Your task to perform on an android device: turn off javascript in the chrome app Image 0: 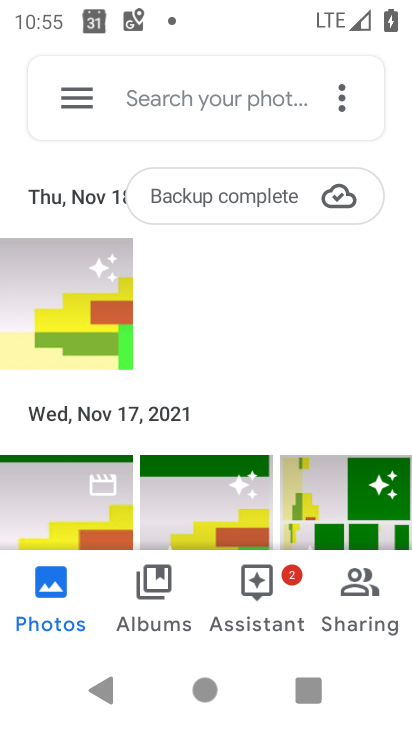
Step 0: press home button
Your task to perform on an android device: turn off javascript in the chrome app Image 1: 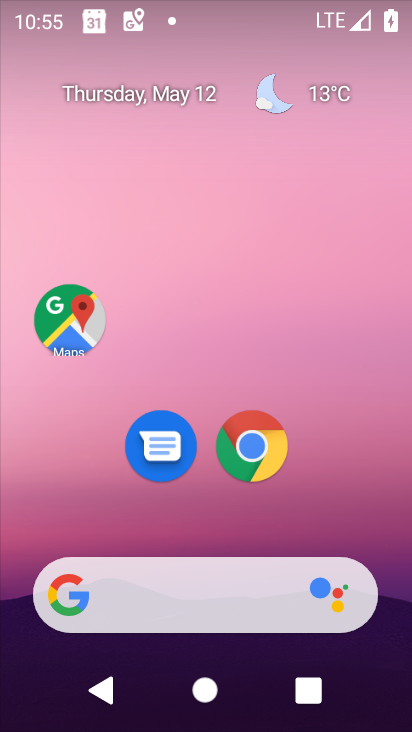
Step 1: drag from (196, 555) to (210, 119)
Your task to perform on an android device: turn off javascript in the chrome app Image 2: 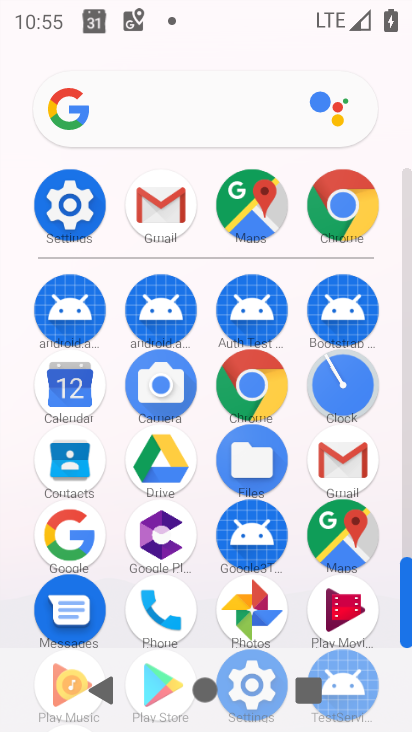
Step 2: click (250, 385)
Your task to perform on an android device: turn off javascript in the chrome app Image 3: 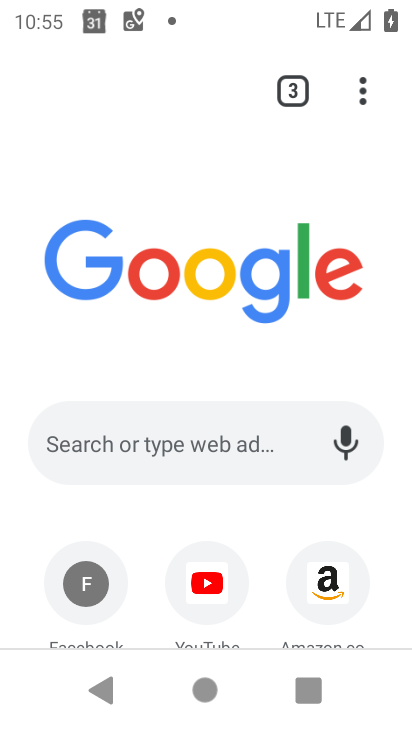
Step 3: drag from (357, 80) to (140, 473)
Your task to perform on an android device: turn off javascript in the chrome app Image 4: 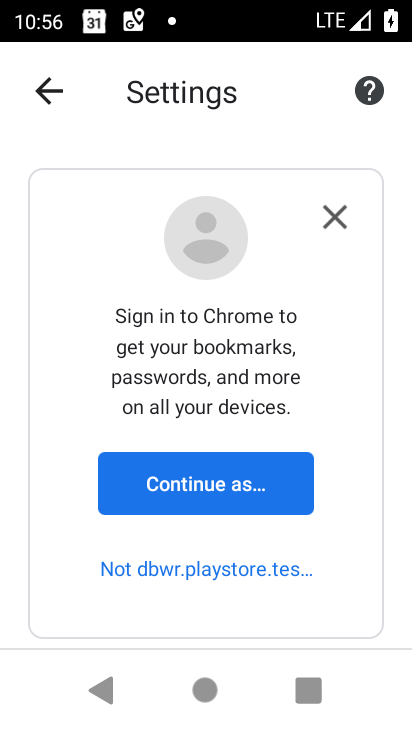
Step 4: drag from (278, 614) to (247, 31)
Your task to perform on an android device: turn off javascript in the chrome app Image 5: 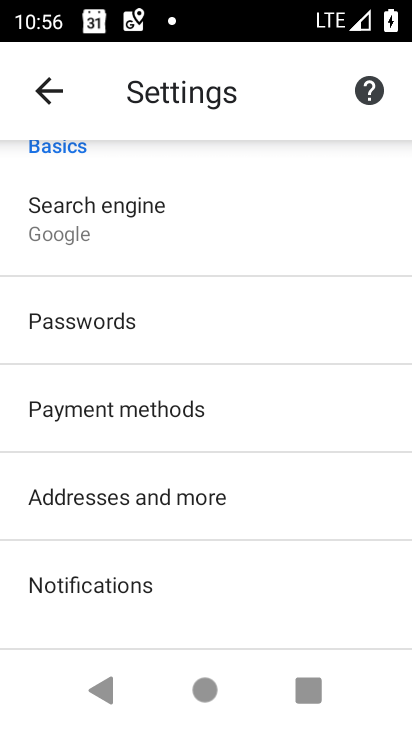
Step 5: drag from (246, 617) to (275, 95)
Your task to perform on an android device: turn off javascript in the chrome app Image 6: 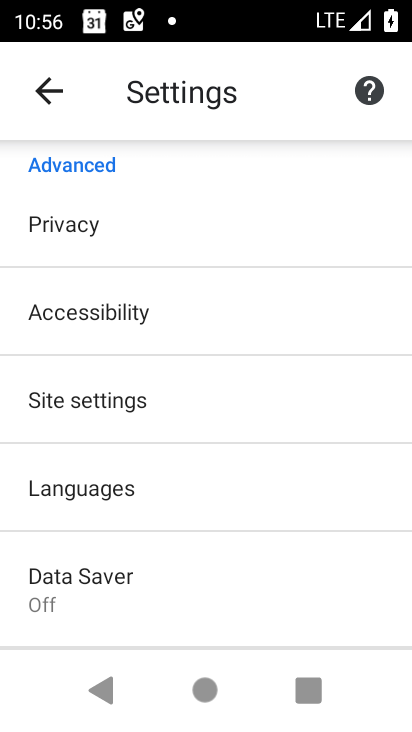
Step 6: click (138, 411)
Your task to perform on an android device: turn off javascript in the chrome app Image 7: 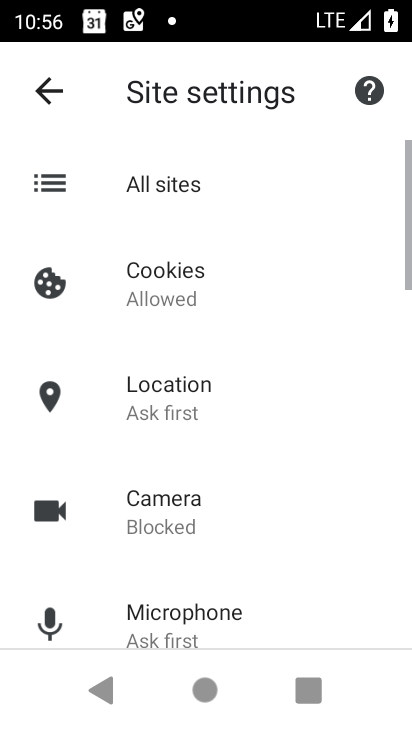
Step 7: drag from (253, 621) to (266, 149)
Your task to perform on an android device: turn off javascript in the chrome app Image 8: 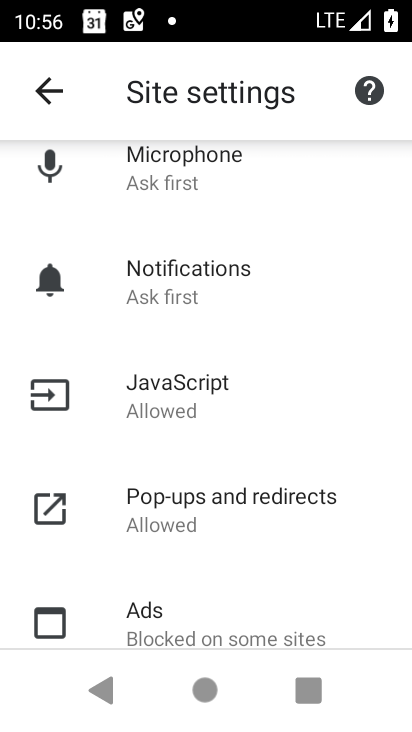
Step 8: click (183, 389)
Your task to perform on an android device: turn off javascript in the chrome app Image 9: 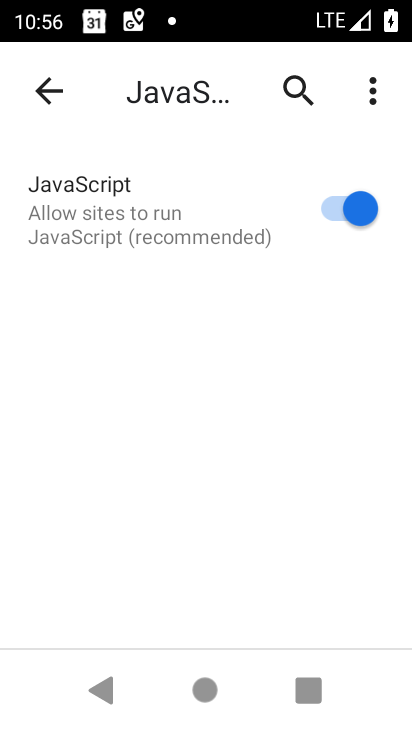
Step 9: click (345, 210)
Your task to perform on an android device: turn off javascript in the chrome app Image 10: 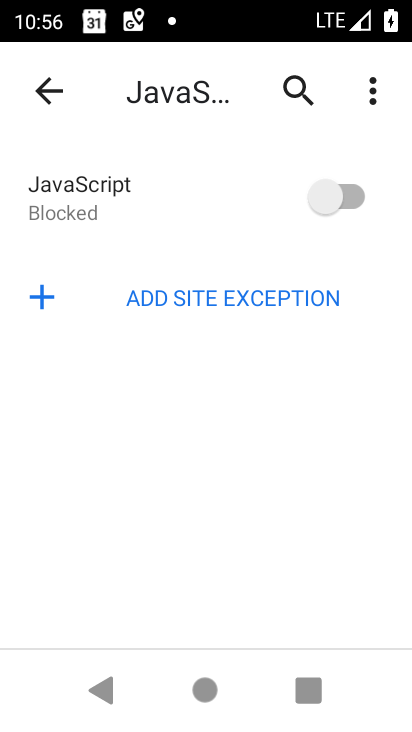
Step 10: task complete